Your task to perform on an android device: turn on wifi Image 0: 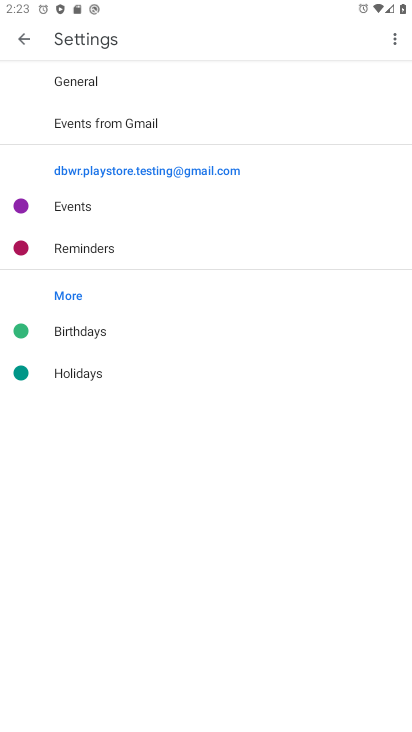
Step 0: drag from (372, 1) to (381, 430)
Your task to perform on an android device: turn on wifi Image 1: 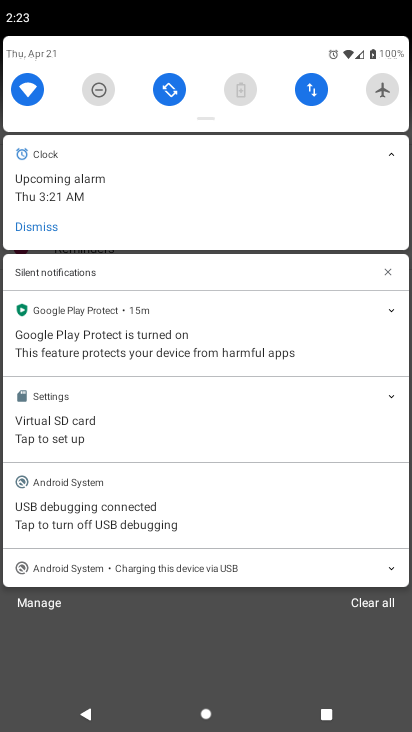
Step 1: task complete